Your task to perform on an android device: Go to calendar. Show me events next week Image 0: 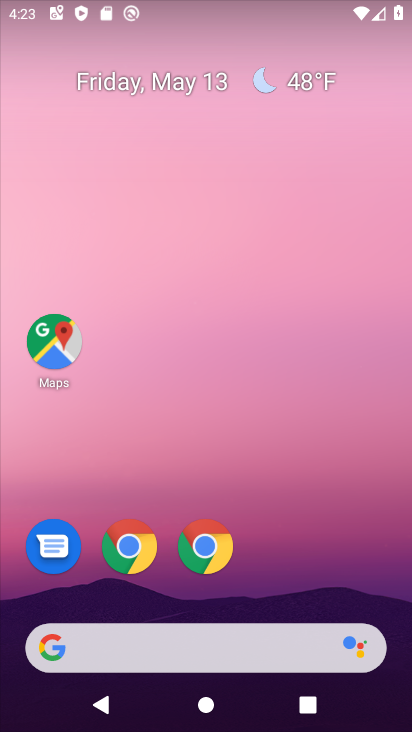
Step 0: drag from (325, 573) to (146, 8)
Your task to perform on an android device: Go to calendar. Show me events next week Image 1: 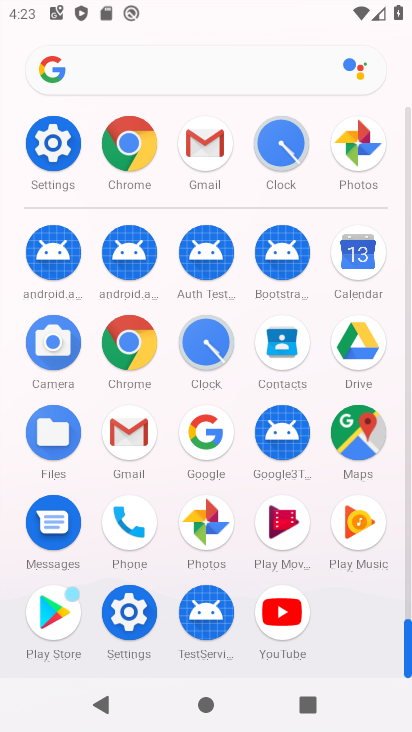
Step 1: click (341, 254)
Your task to perform on an android device: Go to calendar. Show me events next week Image 2: 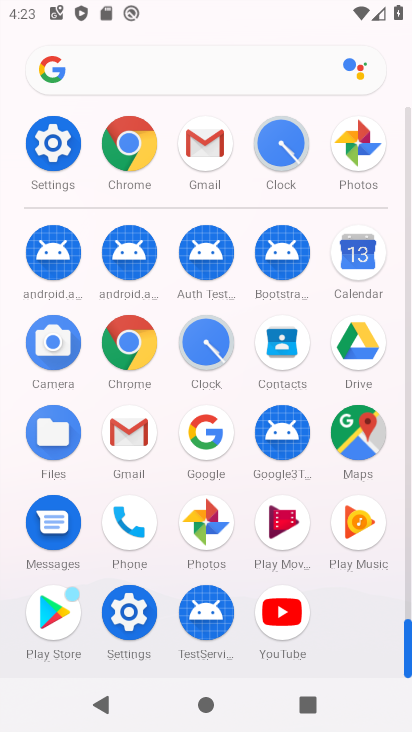
Step 2: click (343, 254)
Your task to perform on an android device: Go to calendar. Show me events next week Image 3: 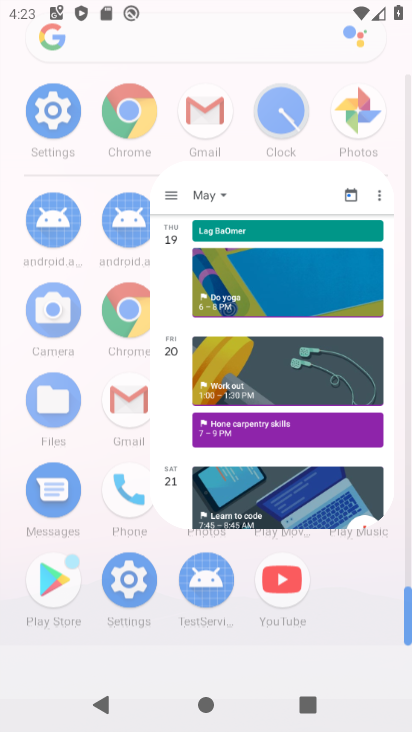
Step 3: click (345, 253)
Your task to perform on an android device: Go to calendar. Show me events next week Image 4: 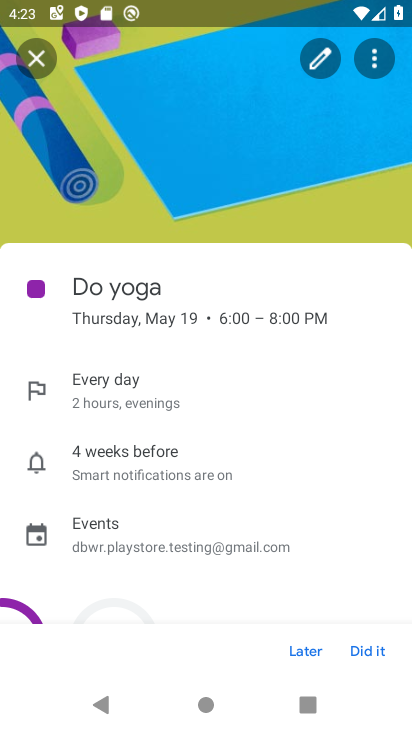
Step 4: click (45, 71)
Your task to perform on an android device: Go to calendar. Show me events next week Image 5: 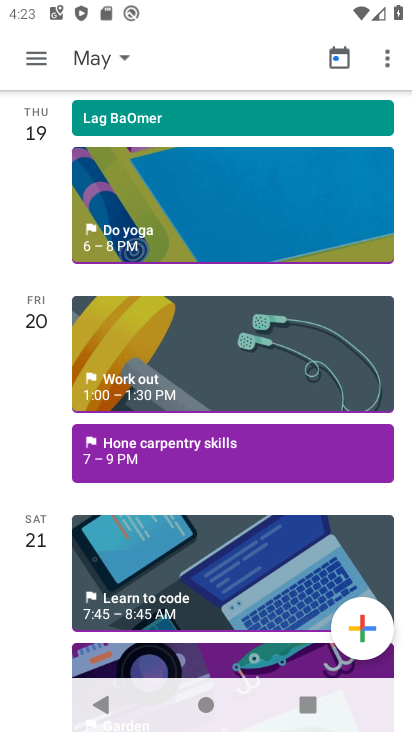
Step 5: drag from (178, 417) to (126, 63)
Your task to perform on an android device: Go to calendar. Show me events next week Image 6: 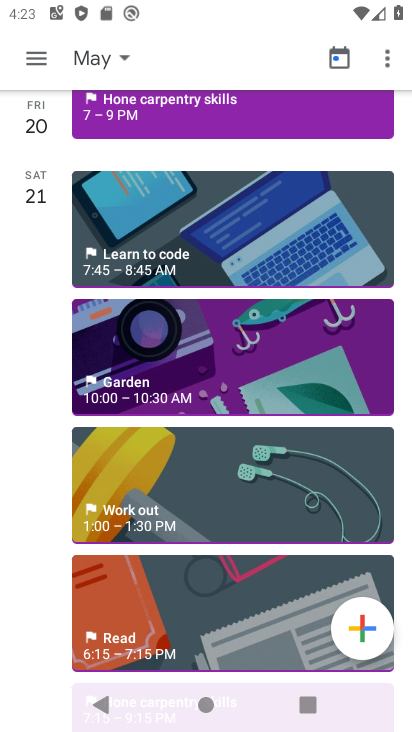
Step 6: drag from (186, 463) to (155, 37)
Your task to perform on an android device: Go to calendar. Show me events next week Image 7: 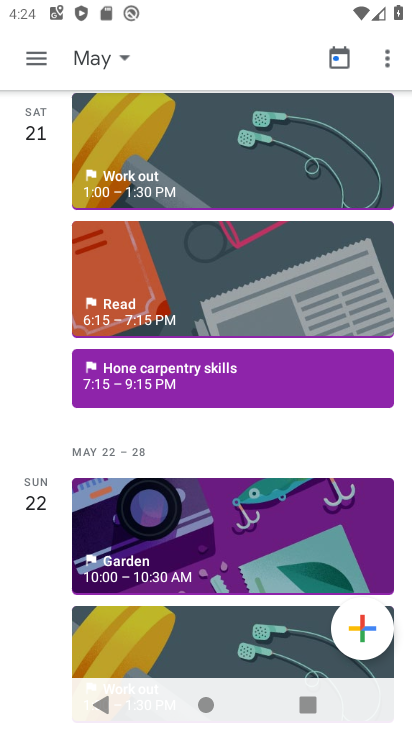
Step 7: drag from (173, 469) to (170, 50)
Your task to perform on an android device: Go to calendar. Show me events next week Image 8: 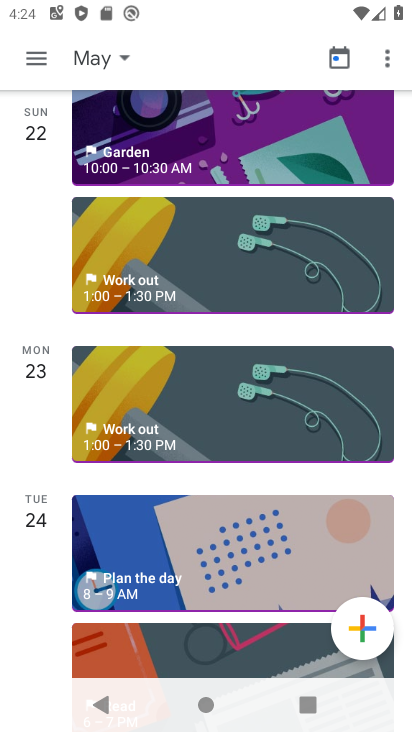
Step 8: drag from (203, 573) to (199, 133)
Your task to perform on an android device: Go to calendar. Show me events next week Image 9: 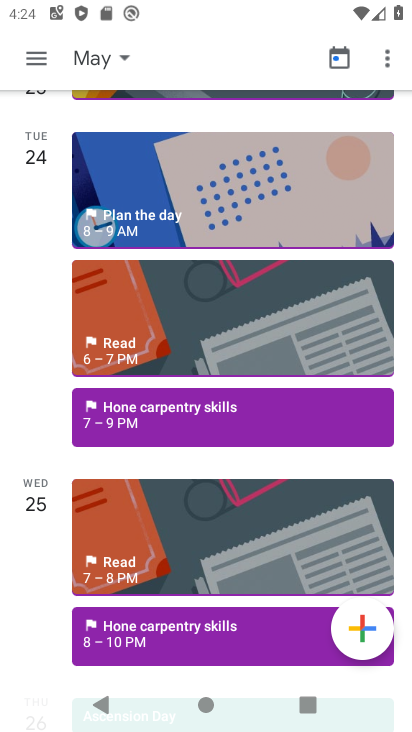
Step 9: click (133, 632)
Your task to perform on an android device: Go to calendar. Show me events next week Image 10: 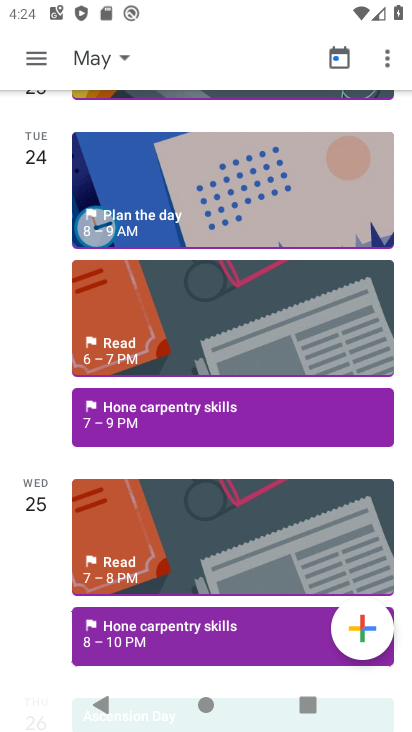
Step 10: click (132, 629)
Your task to perform on an android device: Go to calendar. Show me events next week Image 11: 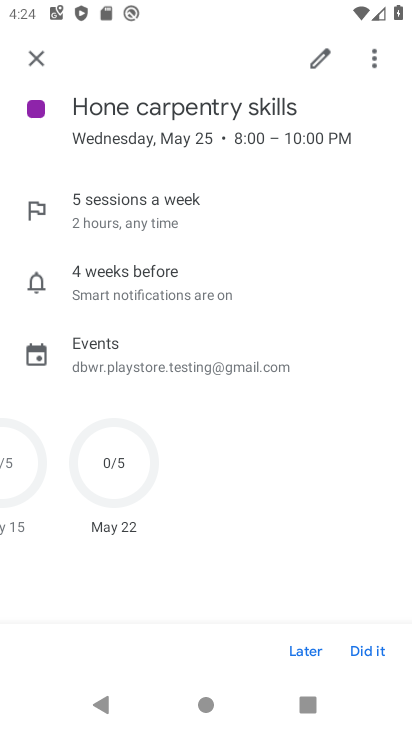
Step 11: task complete